Your task to perform on an android device: add a contact Image 0: 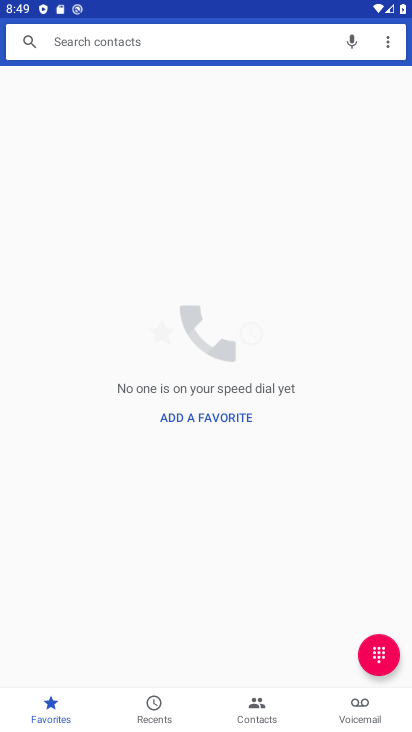
Step 0: press home button
Your task to perform on an android device: add a contact Image 1: 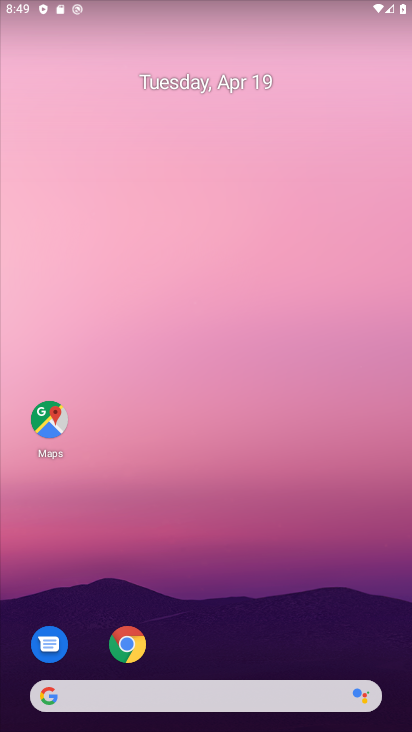
Step 1: drag from (258, 574) to (233, 26)
Your task to perform on an android device: add a contact Image 2: 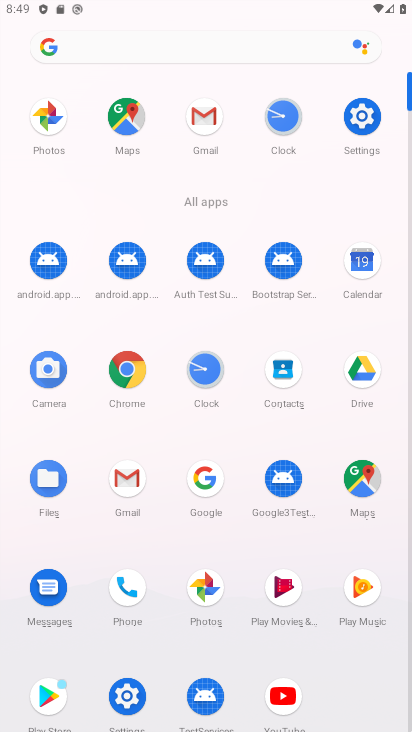
Step 2: click (278, 370)
Your task to perform on an android device: add a contact Image 3: 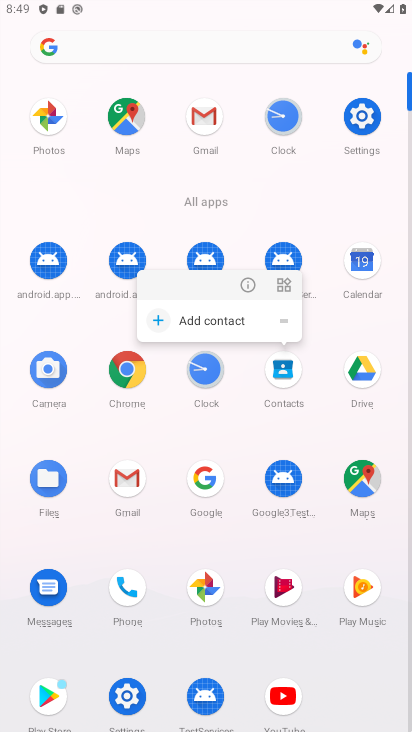
Step 3: click (277, 366)
Your task to perform on an android device: add a contact Image 4: 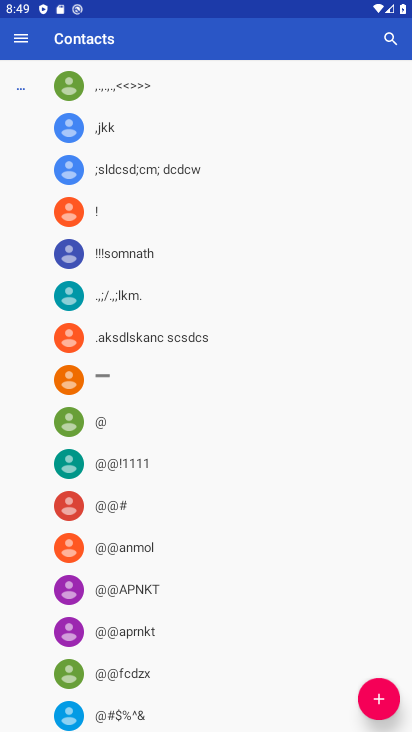
Step 4: click (374, 693)
Your task to perform on an android device: add a contact Image 5: 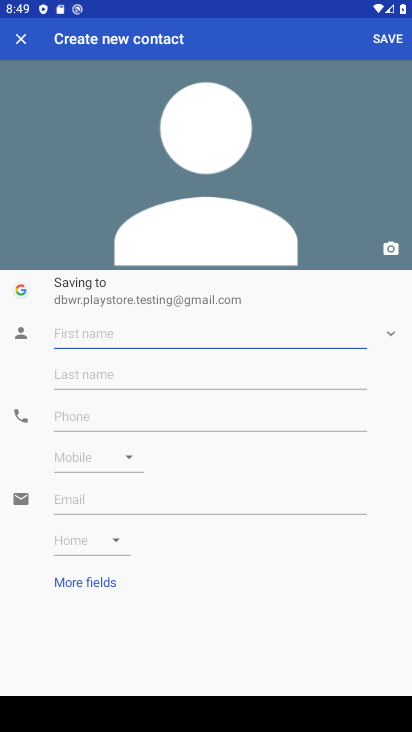
Step 5: click (125, 326)
Your task to perform on an android device: add a contact Image 6: 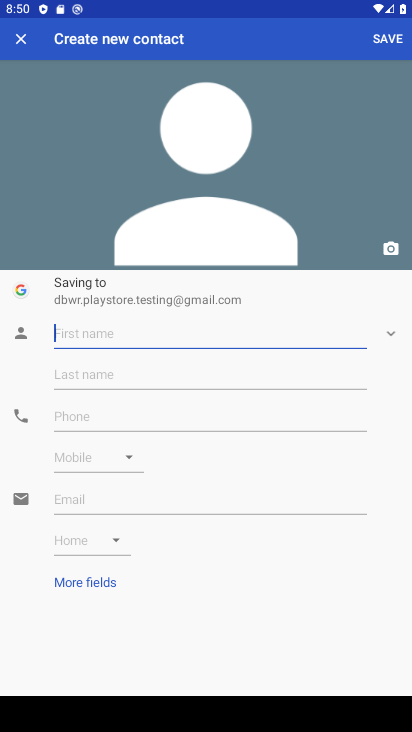
Step 6: click (125, 333)
Your task to perform on an android device: add a contact Image 7: 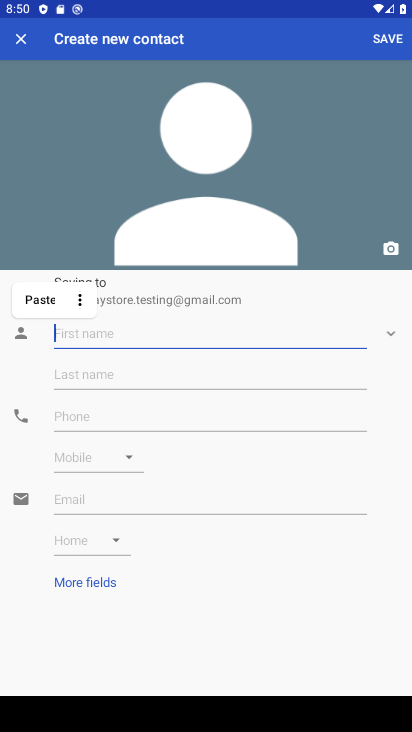
Step 7: click (222, 326)
Your task to perform on an android device: add a contact Image 8: 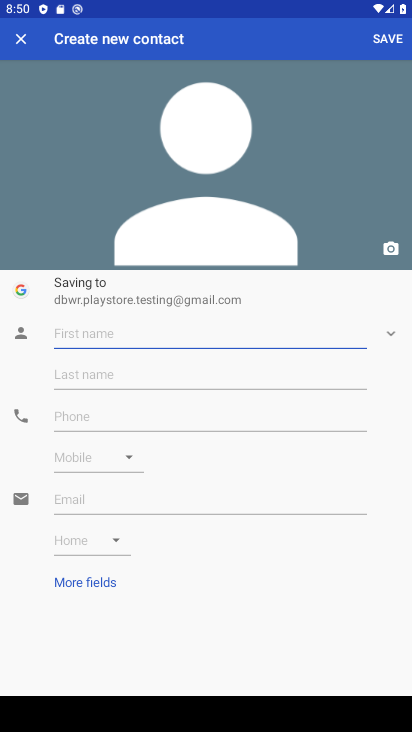
Step 8: type "mmmmm"
Your task to perform on an android device: add a contact Image 9: 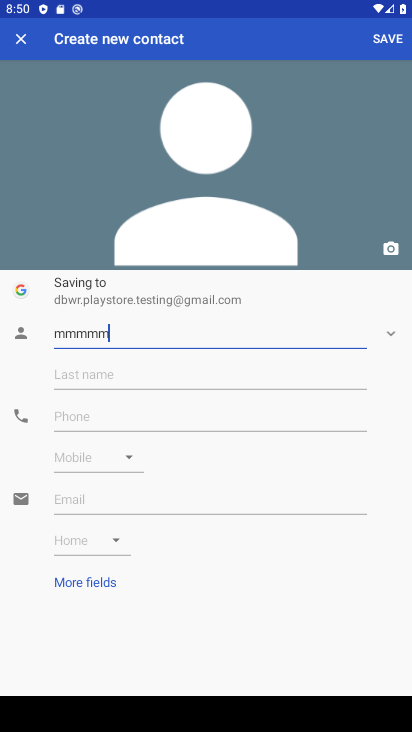
Step 9: click (97, 407)
Your task to perform on an android device: add a contact Image 10: 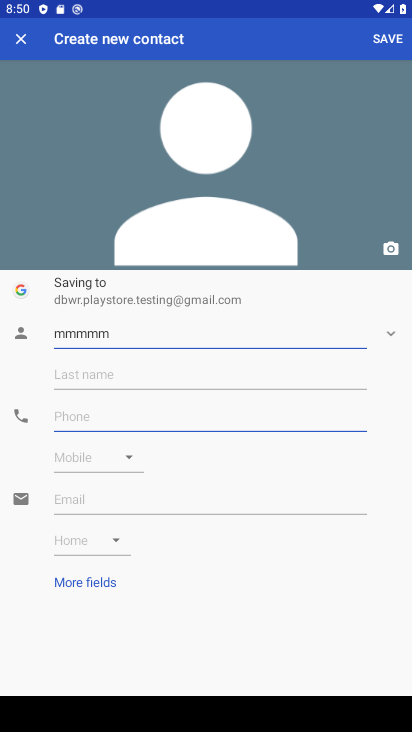
Step 10: click (97, 407)
Your task to perform on an android device: add a contact Image 11: 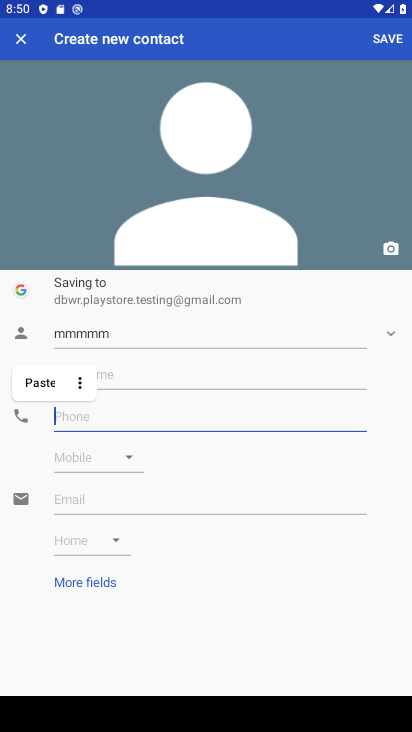
Step 11: type "5555"
Your task to perform on an android device: add a contact Image 12: 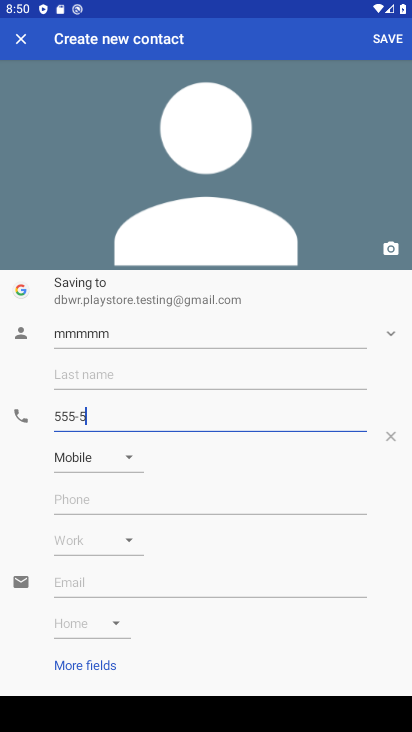
Step 12: click (377, 36)
Your task to perform on an android device: add a contact Image 13: 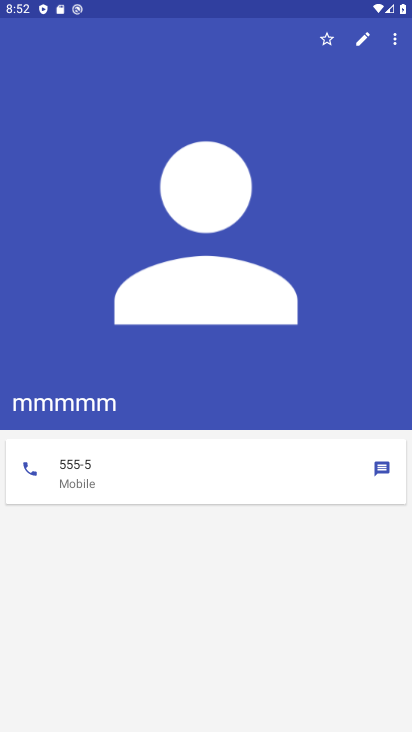
Step 13: task complete